Your task to perform on an android device: Search for logitech g910 on amazon, select the first entry, and add it to the cart. Image 0: 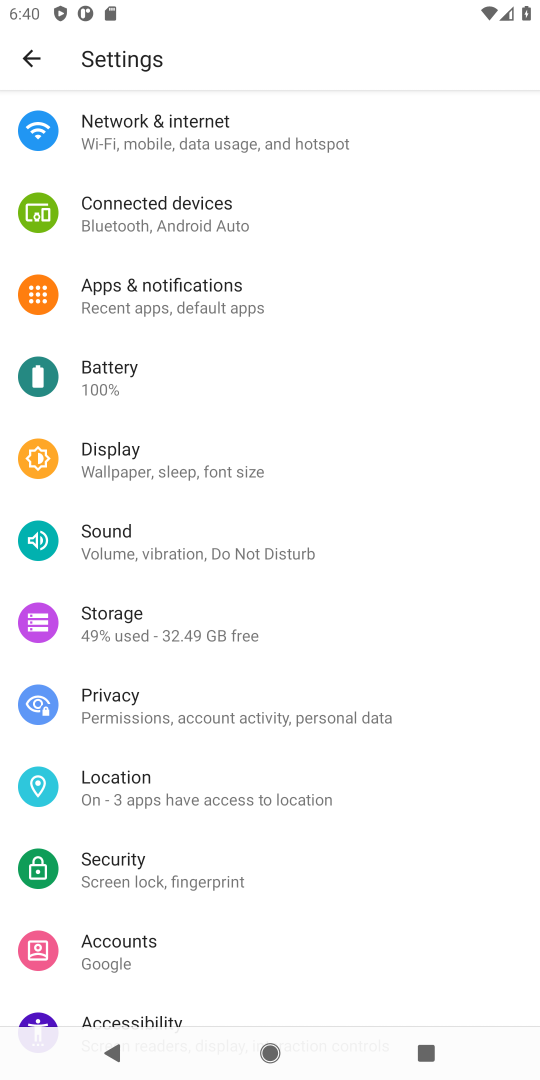
Step 0: press home button
Your task to perform on an android device: Search for logitech g910 on amazon, select the first entry, and add it to the cart. Image 1: 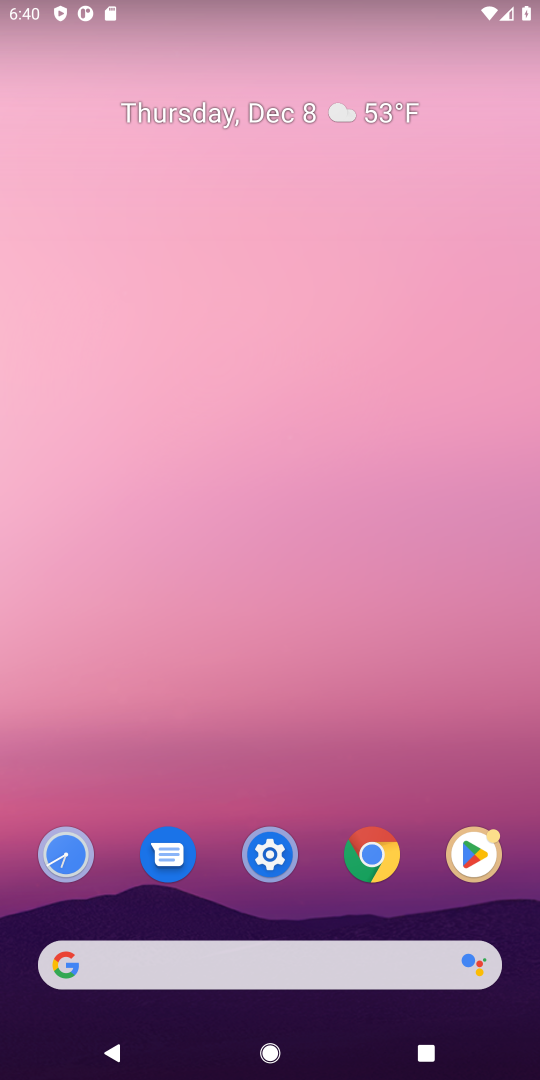
Step 1: click (95, 967)
Your task to perform on an android device: Search for logitech g910 on amazon, select the first entry, and add it to the cart. Image 2: 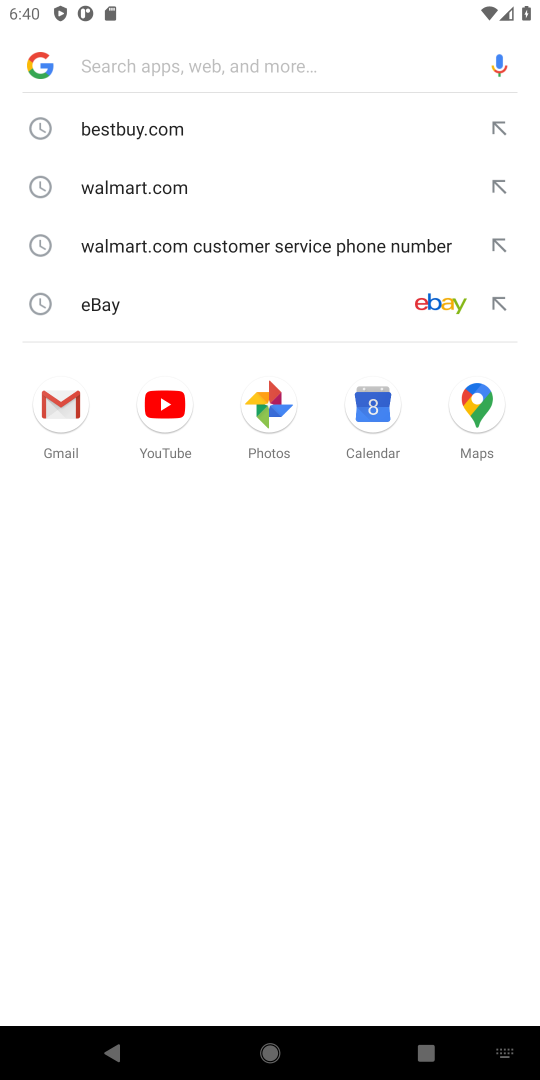
Step 2: type "amazon"
Your task to perform on an android device: Search for logitech g910 on amazon, select the first entry, and add it to the cart. Image 3: 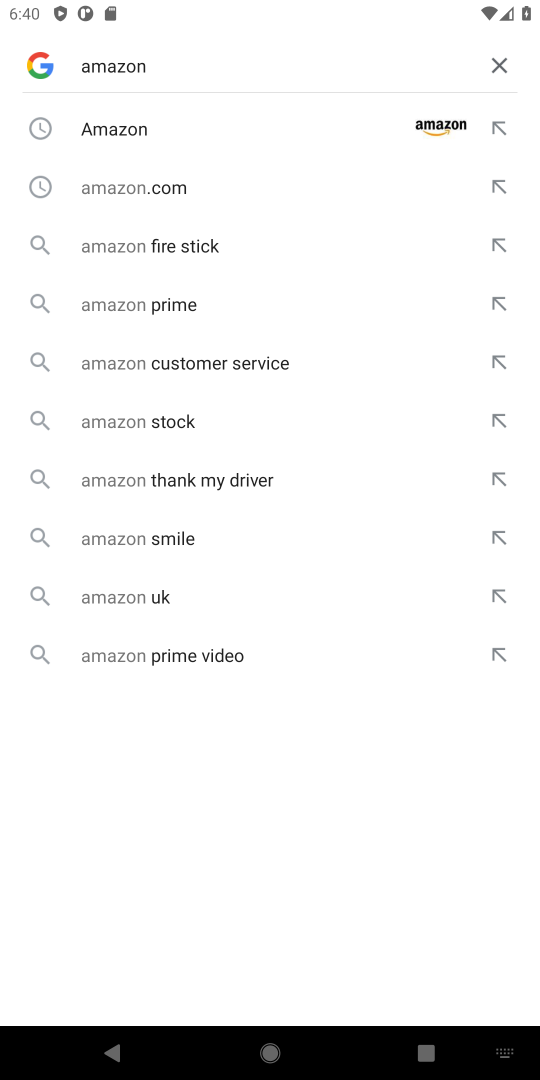
Step 3: press enter
Your task to perform on an android device: Search for logitech g910 on amazon, select the first entry, and add it to the cart. Image 4: 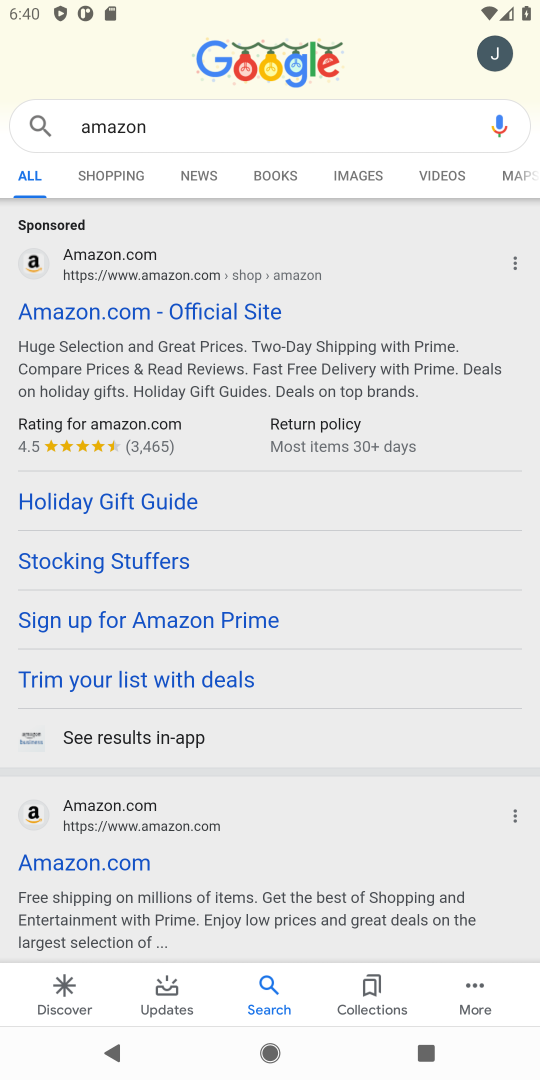
Step 4: click (175, 310)
Your task to perform on an android device: Search for logitech g910 on amazon, select the first entry, and add it to the cart. Image 5: 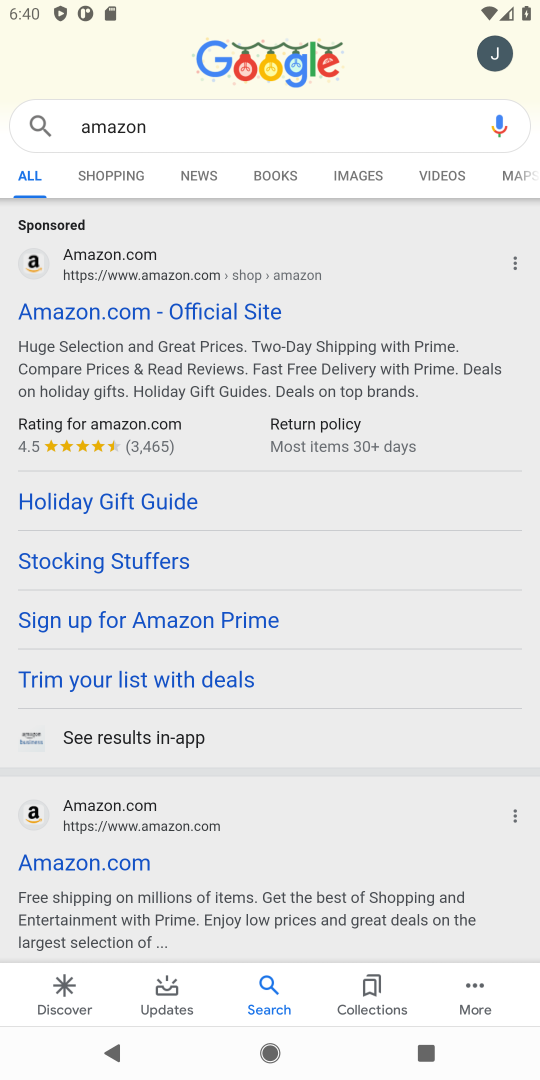
Step 5: click (151, 305)
Your task to perform on an android device: Search for logitech g910 on amazon, select the first entry, and add it to the cart. Image 6: 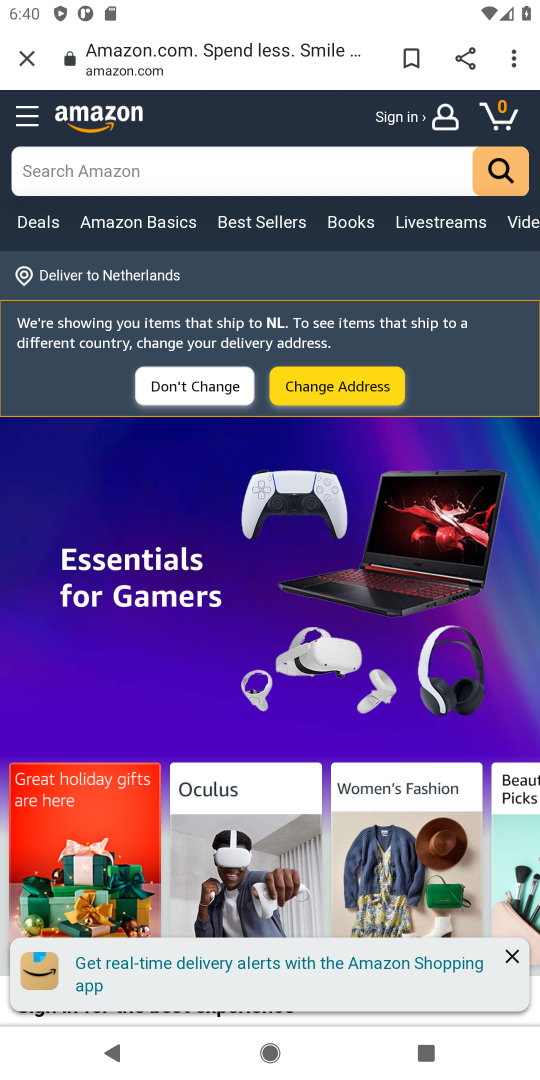
Step 6: click (247, 163)
Your task to perform on an android device: Search for logitech g910 on amazon, select the first entry, and add it to the cart. Image 7: 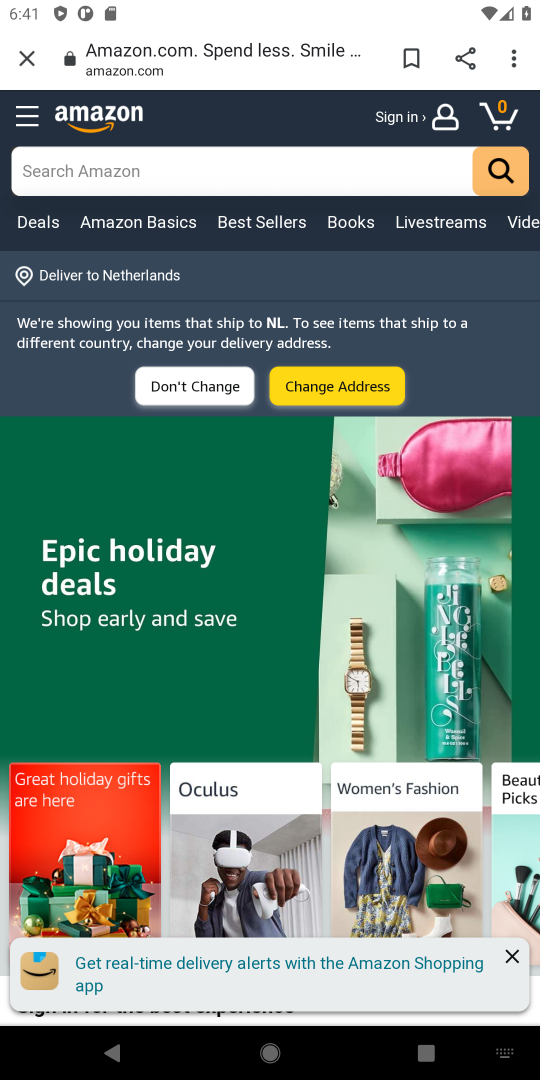
Step 7: type " logitech g910"
Your task to perform on an android device: Search for logitech g910 on amazon, select the first entry, and add it to the cart. Image 8: 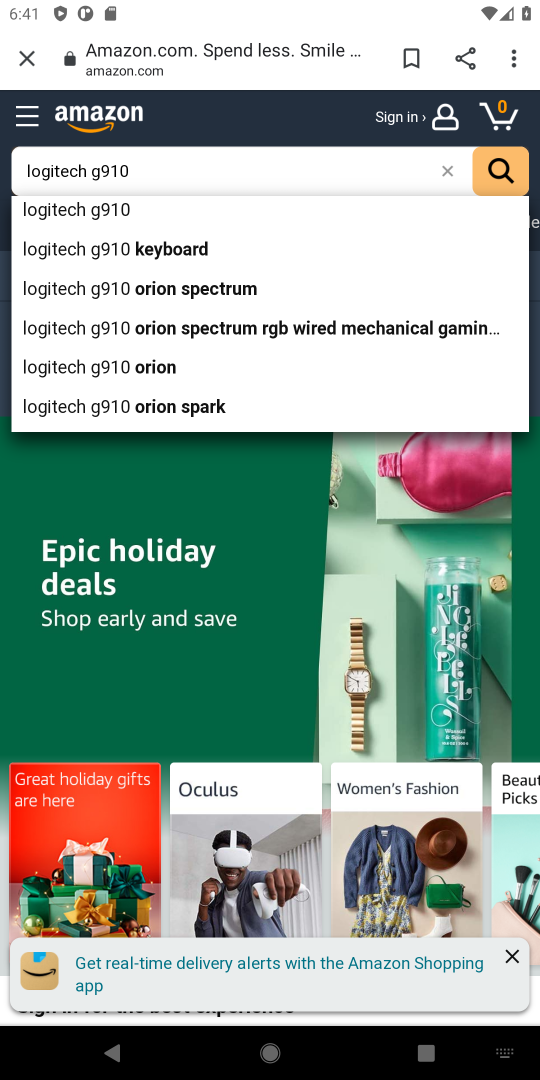
Step 8: click (498, 166)
Your task to perform on an android device: Search for logitech g910 on amazon, select the first entry, and add it to the cart. Image 9: 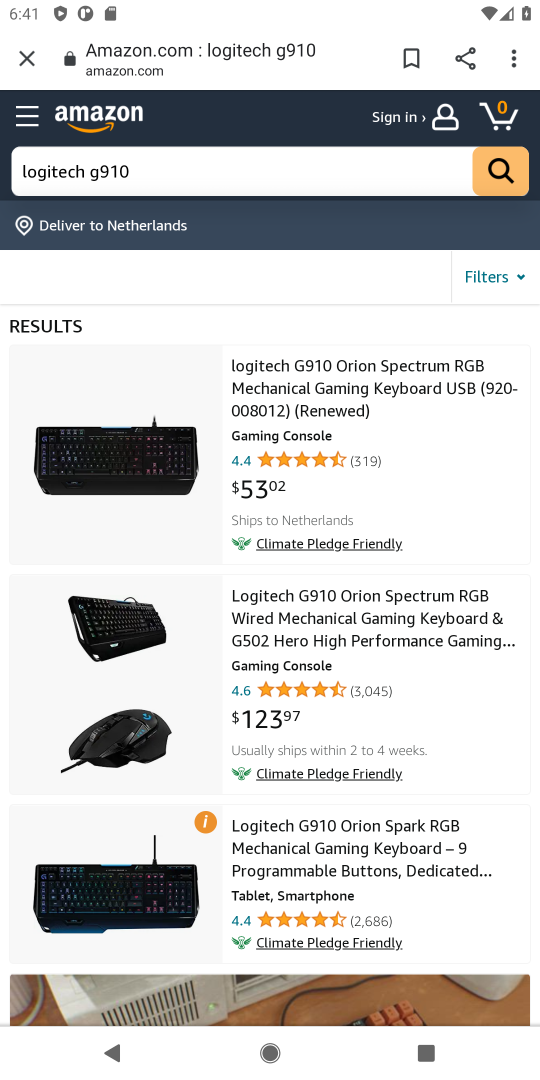
Step 9: click (268, 393)
Your task to perform on an android device: Search for logitech g910 on amazon, select the first entry, and add it to the cart. Image 10: 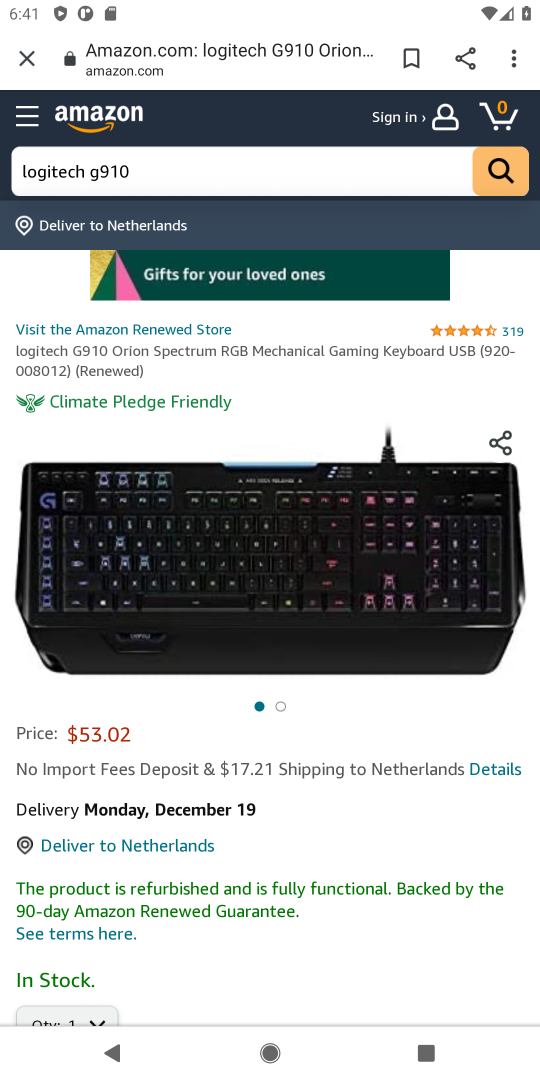
Step 10: drag from (315, 909) to (313, 480)
Your task to perform on an android device: Search for logitech g910 on amazon, select the first entry, and add it to the cart. Image 11: 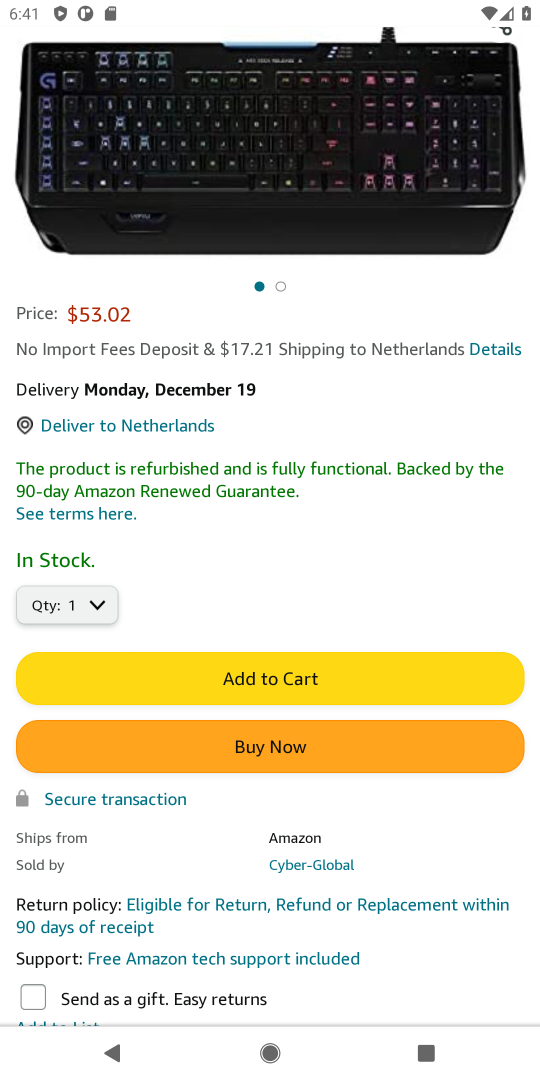
Step 11: click (271, 669)
Your task to perform on an android device: Search for logitech g910 on amazon, select the first entry, and add it to the cart. Image 12: 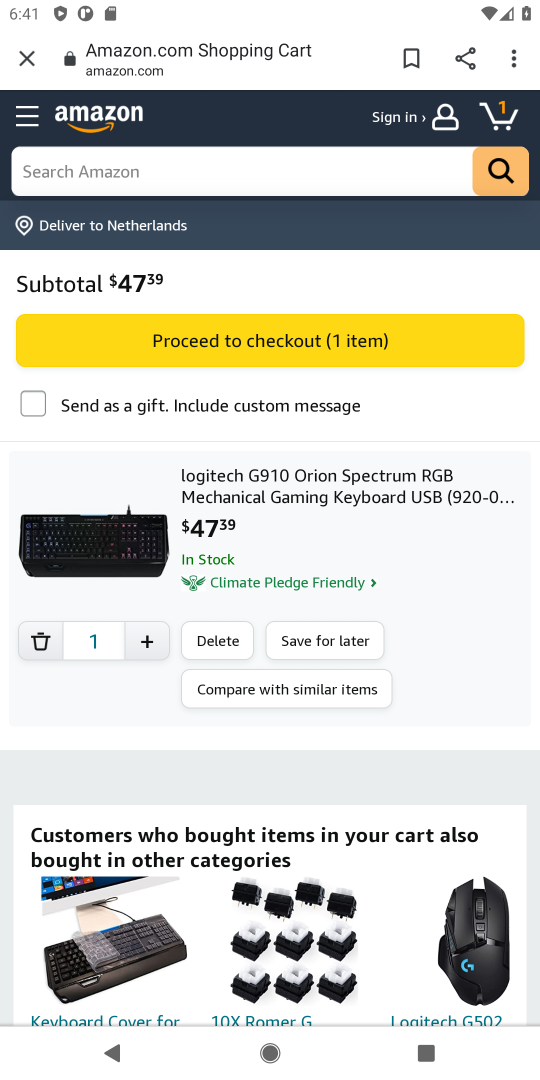
Step 12: task complete